Your task to perform on an android device: clear all cookies in the chrome app Image 0: 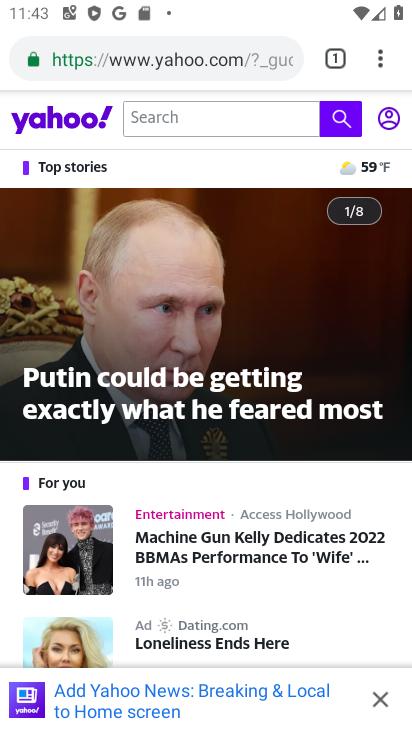
Step 0: click (378, 57)
Your task to perform on an android device: clear all cookies in the chrome app Image 1: 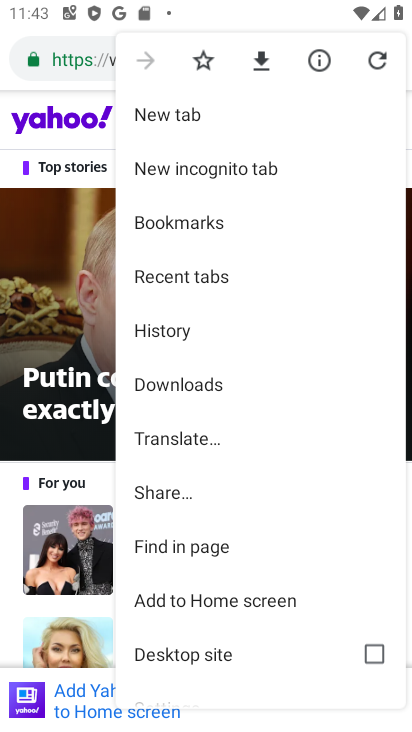
Step 1: click (167, 335)
Your task to perform on an android device: clear all cookies in the chrome app Image 2: 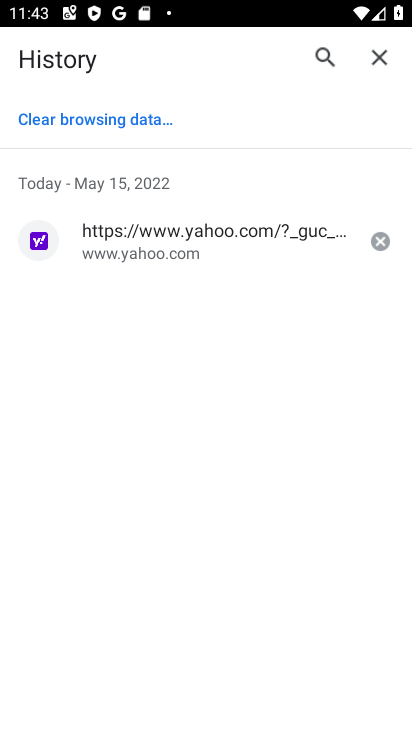
Step 2: click (107, 124)
Your task to perform on an android device: clear all cookies in the chrome app Image 3: 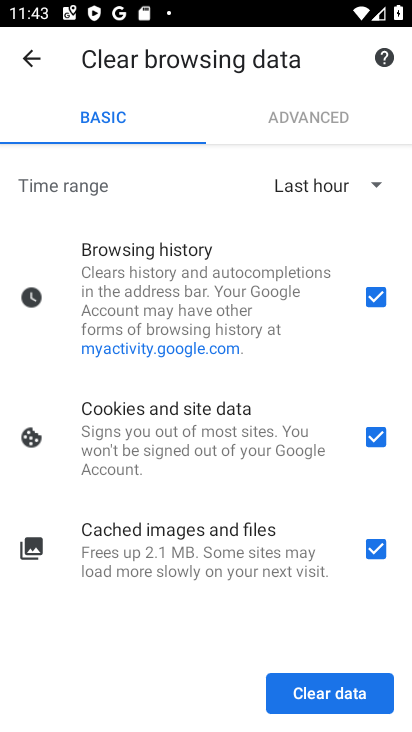
Step 3: click (371, 547)
Your task to perform on an android device: clear all cookies in the chrome app Image 4: 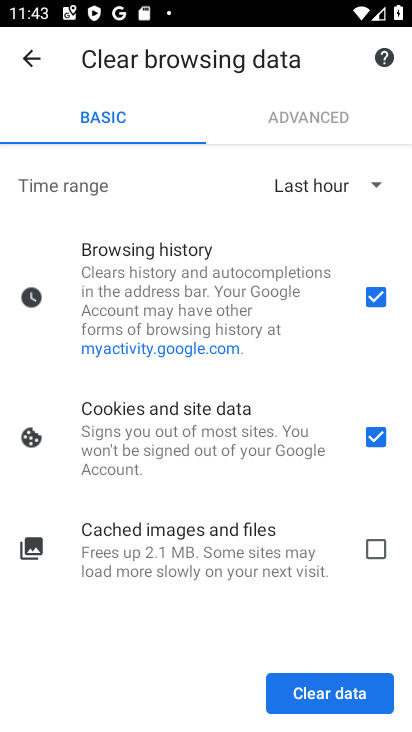
Step 4: click (347, 301)
Your task to perform on an android device: clear all cookies in the chrome app Image 5: 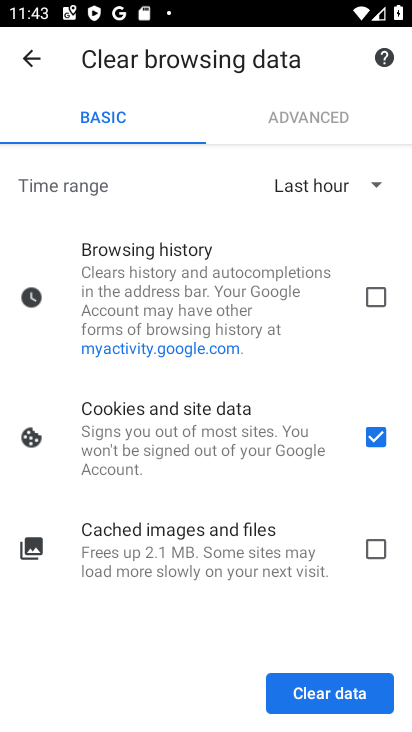
Step 5: click (326, 683)
Your task to perform on an android device: clear all cookies in the chrome app Image 6: 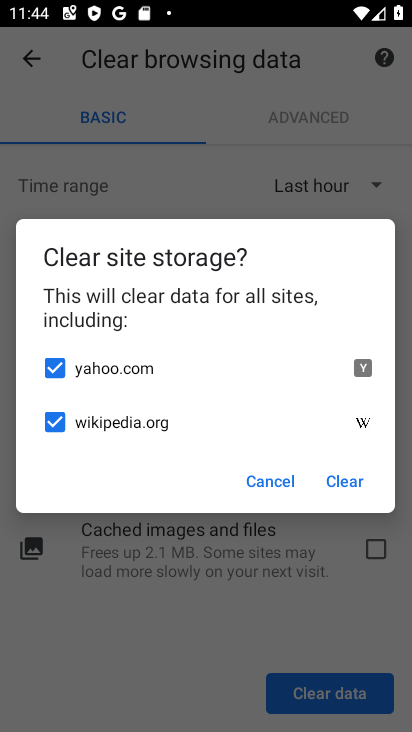
Step 6: click (332, 487)
Your task to perform on an android device: clear all cookies in the chrome app Image 7: 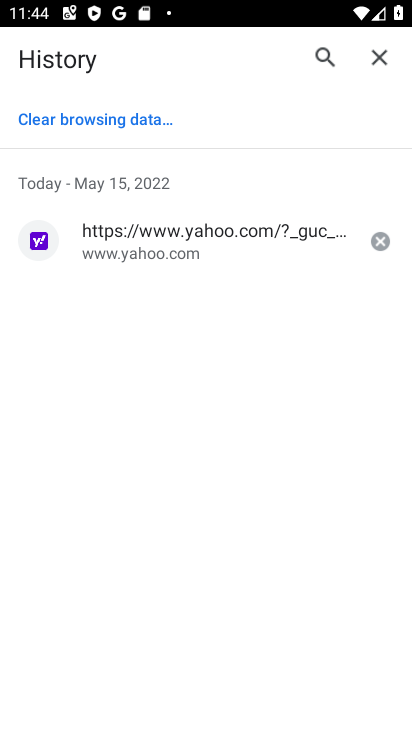
Step 7: task complete